Your task to perform on an android device: change keyboard looks Image 0: 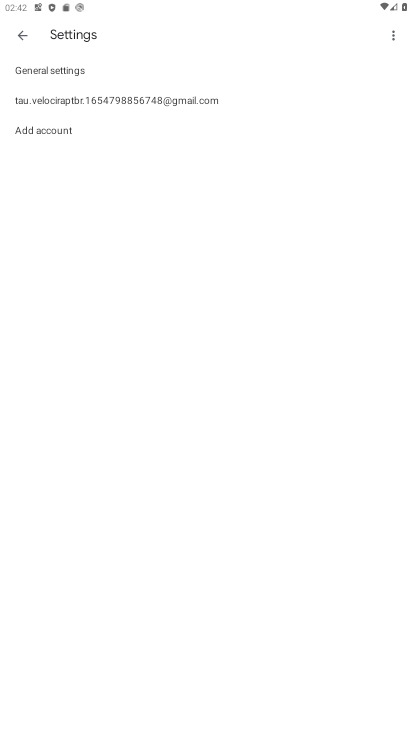
Step 0: press home button
Your task to perform on an android device: change keyboard looks Image 1: 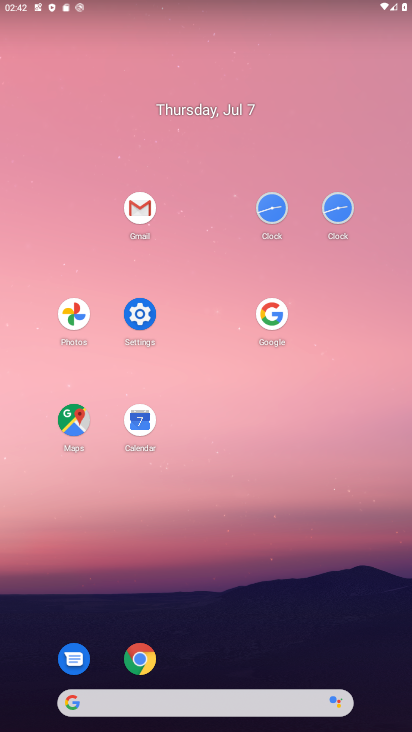
Step 1: click (147, 311)
Your task to perform on an android device: change keyboard looks Image 2: 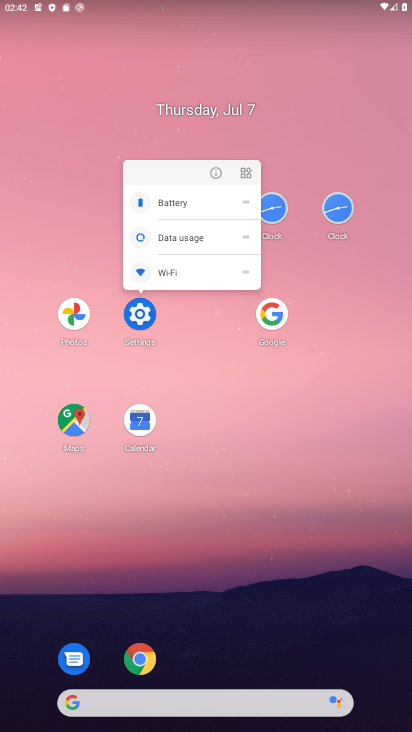
Step 2: click (136, 324)
Your task to perform on an android device: change keyboard looks Image 3: 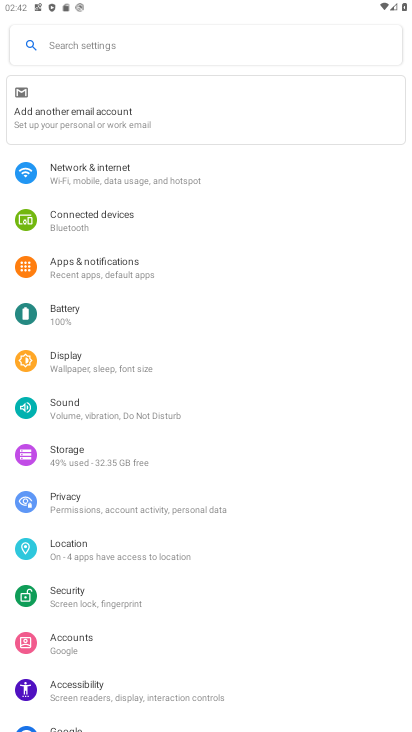
Step 3: drag from (191, 623) to (207, 408)
Your task to perform on an android device: change keyboard looks Image 4: 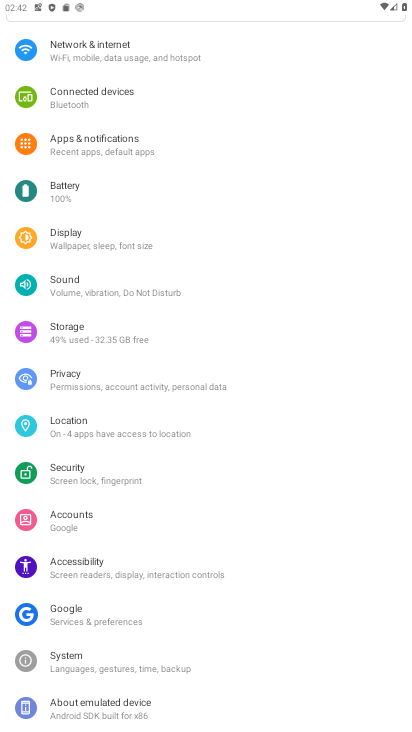
Step 4: click (162, 649)
Your task to perform on an android device: change keyboard looks Image 5: 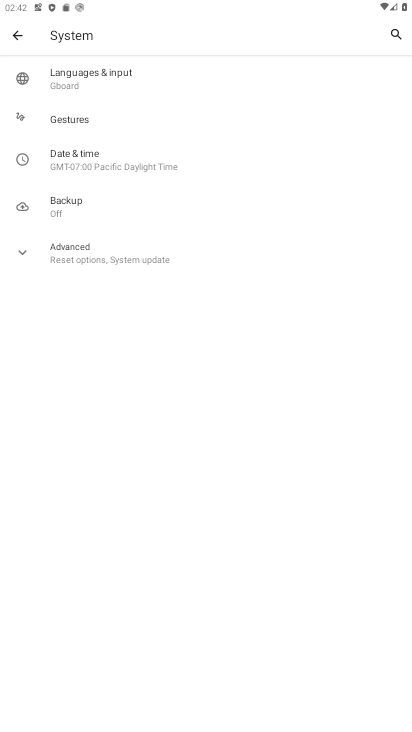
Step 5: click (67, 91)
Your task to perform on an android device: change keyboard looks Image 6: 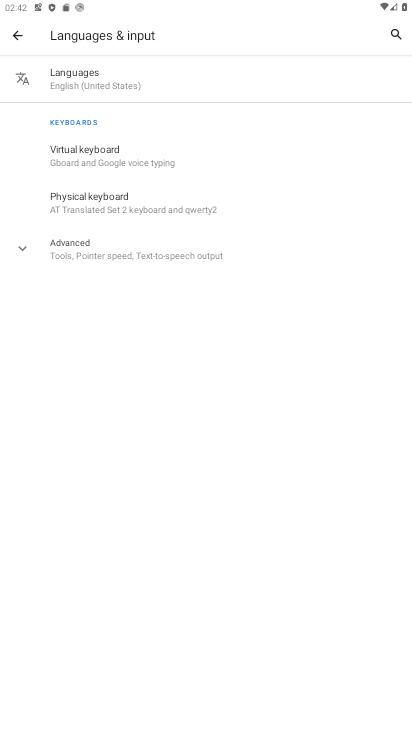
Step 6: click (130, 167)
Your task to perform on an android device: change keyboard looks Image 7: 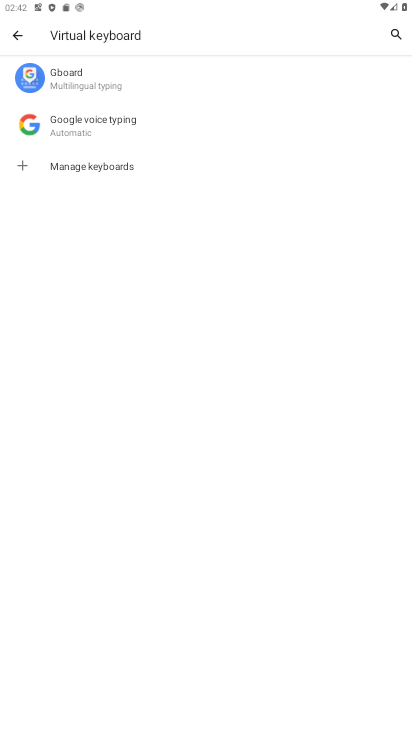
Step 7: click (123, 86)
Your task to perform on an android device: change keyboard looks Image 8: 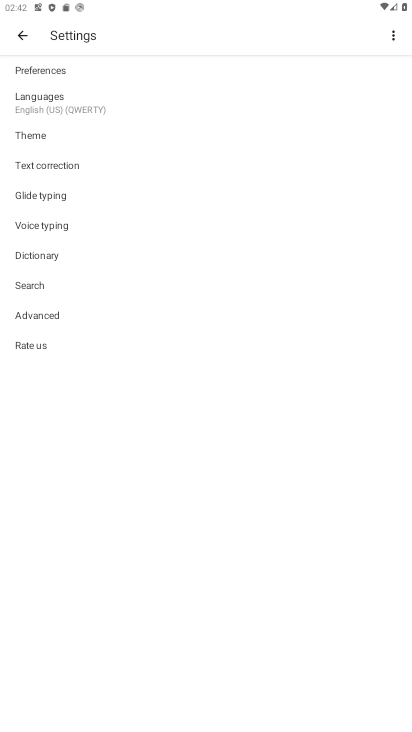
Step 8: click (71, 138)
Your task to perform on an android device: change keyboard looks Image 9: 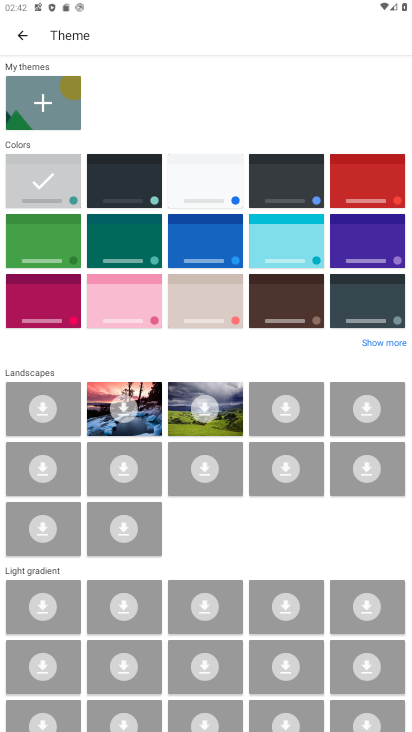
Step 9: click (144, 199)
Your task to perform on an android device: change keyboard looks Image 10: 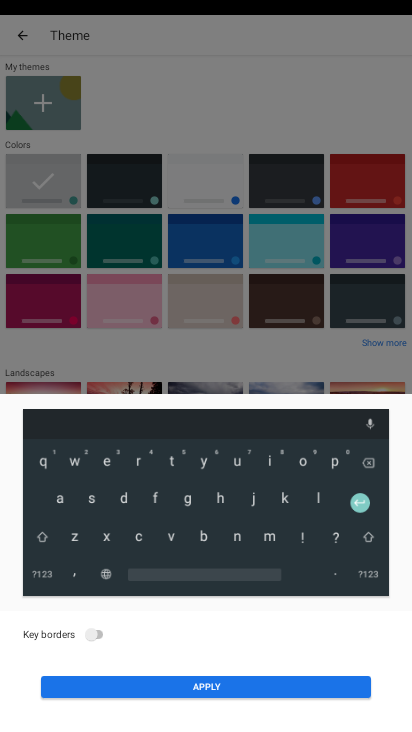
Step 10: click (328, 687)
Your task to perform on an android device: change keyboard looks Image 11: 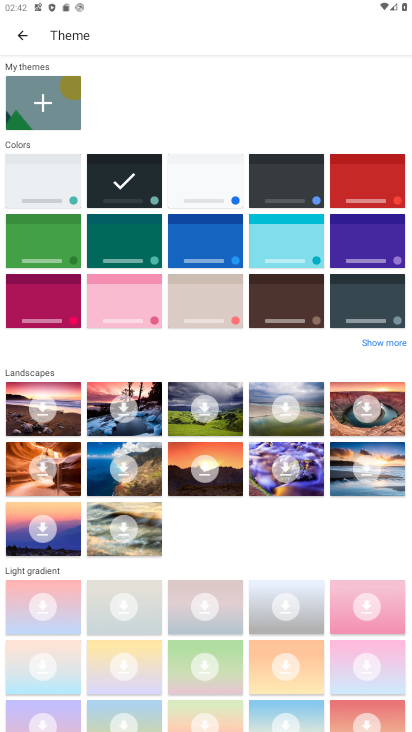
Step 11: task complete